Your task to perform on an android device: check google app version Image 0: 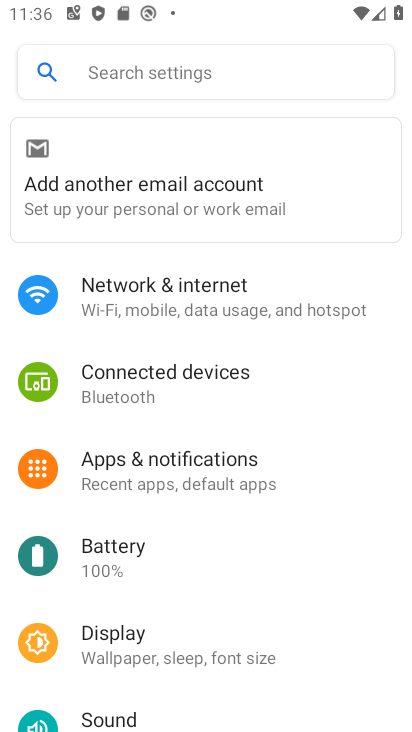
Step 0: press home button
Your task to perform on an android device: check google app version Image 1: 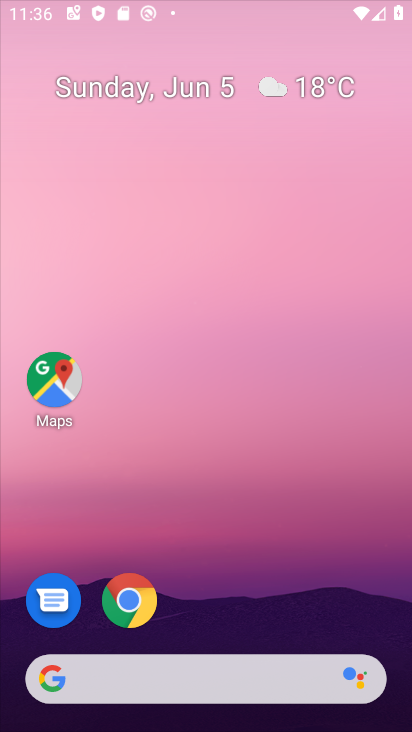
Step 1: drag from (146, 731) to (105, 233)
Your task to perform on an android device: check google app version Image 2: 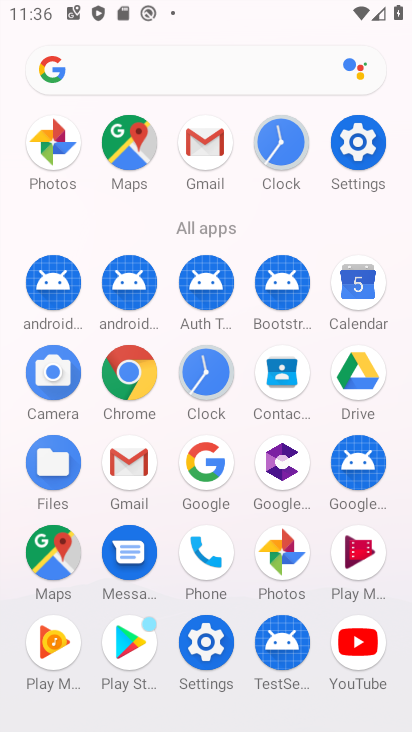
Step 2: click (208, 475)
Your task to perform on an android device: check google app version Image 3: 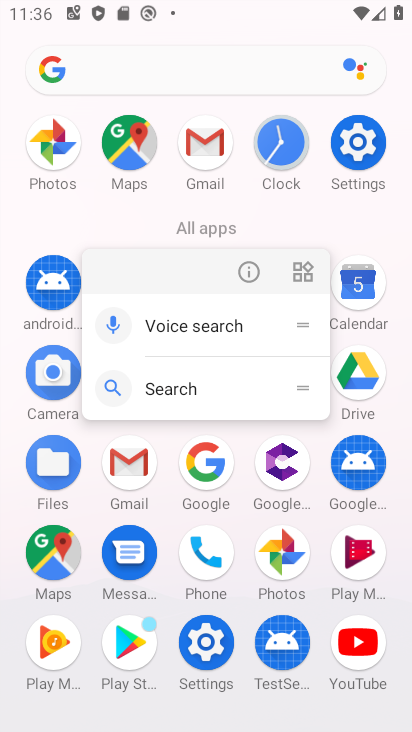
Step 3: click (209, 482)
Your task to perform on an android device: check google app version Image 4: 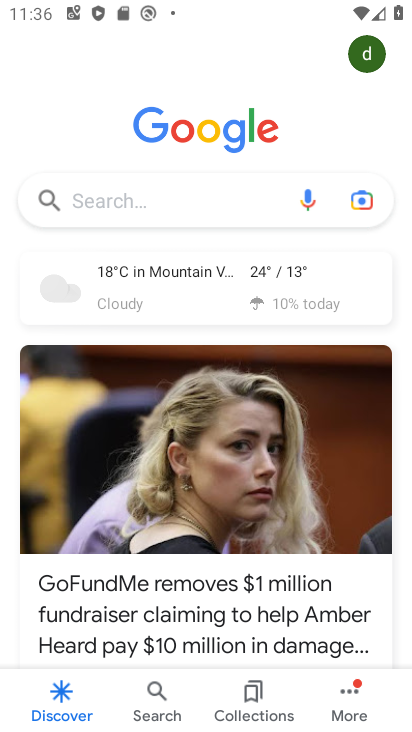
Step 4: click (357, 47)
Your task to perform on an android device: check google app version Image 5: 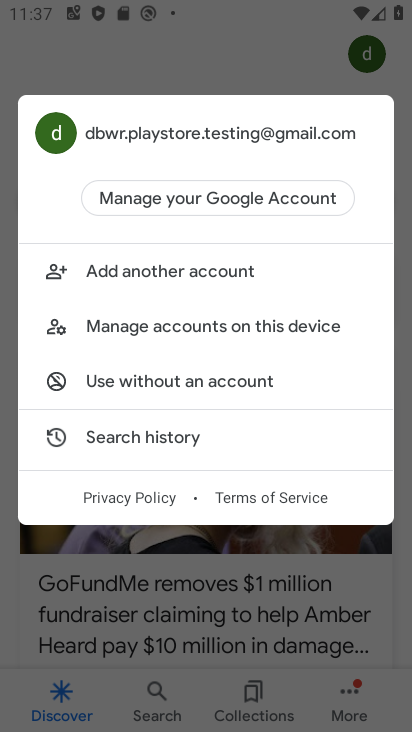
Step 5: click (332, 713)
Your task to perform on an android device: check google app version Image 6: 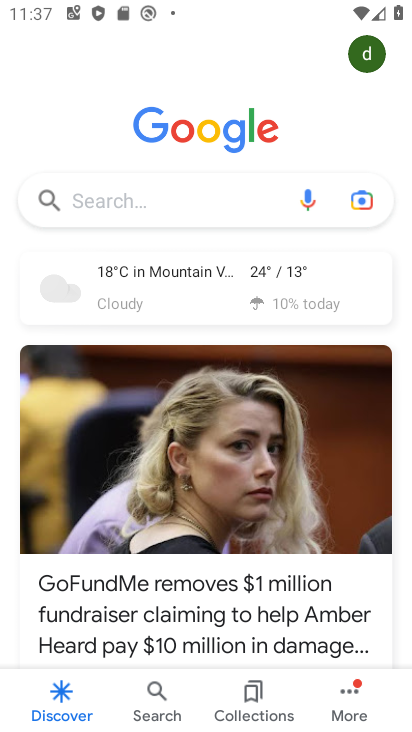
Step 6: click (353, 714)
Your task to perform on an android device: check google app version Image 7: 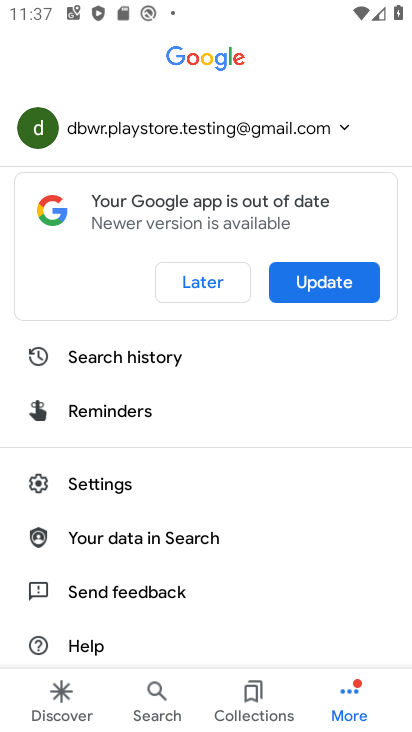
Step 7: click (123, 490)
Your task to perform on an android device: check google app version Image 8: 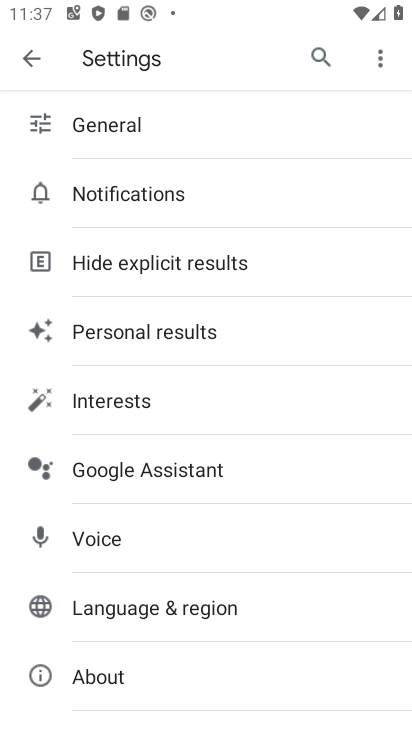
Step 8: click (123, 687)
Your task to perform on an android device: check google app version Image 9: 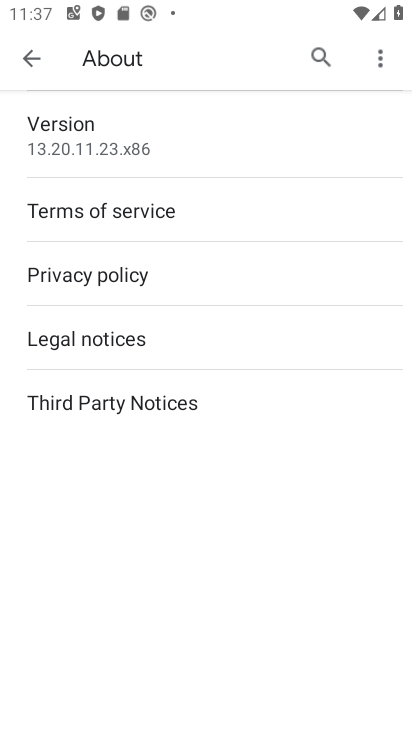
Step 9: task complete